Your task to perform on an android device: Open Google Chrome and open the bookmarks view Image 0: 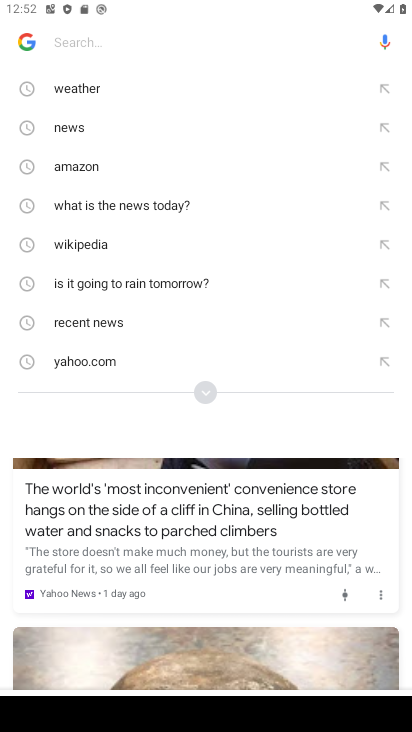
Step 0: press back button
Your task to perform on an android device: Open Google Chrome and open the bookmarks view Image 1: 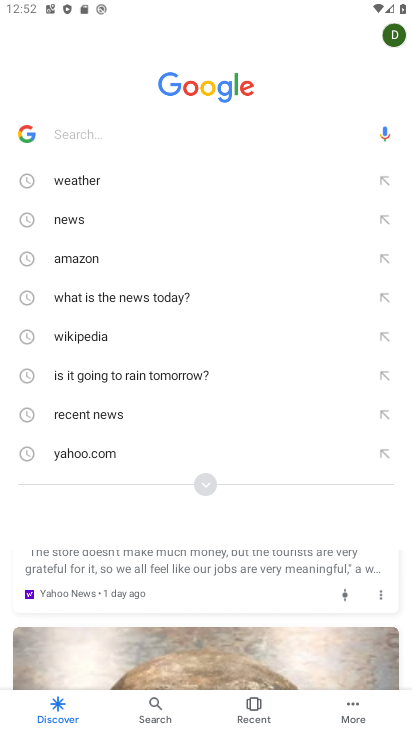
Step 1: press back button
Your task to perform on an android device: Open Google Chrome and open the bookmarks view Image 2: 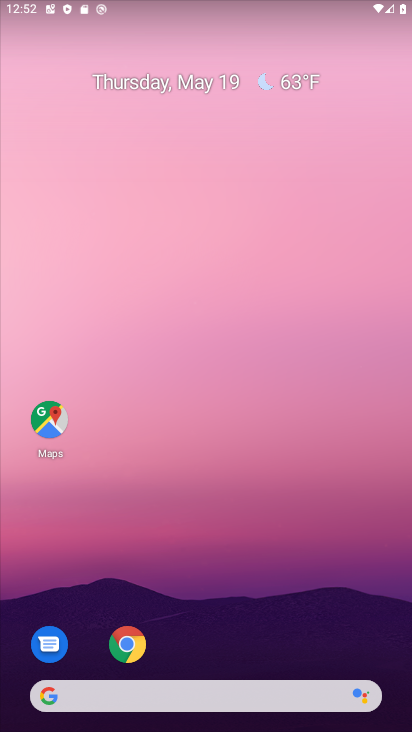
Step 2: click (132, 637)
Your task to perform on an android device: Open Google Chrome and open the bookmarks view Image 3: 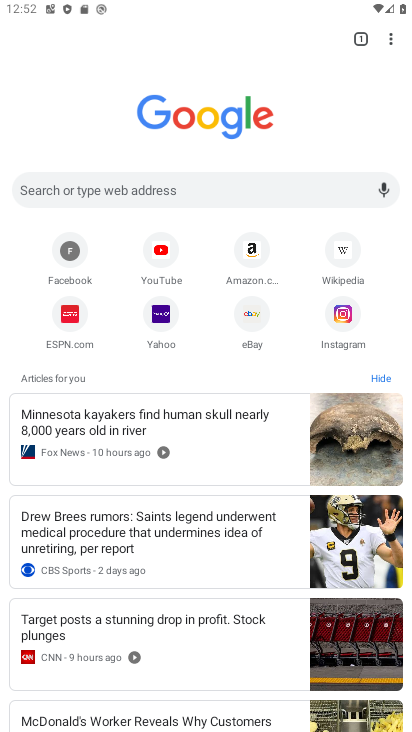
Step 3: click (387, 37)
Your task to perform on an android device: Open Google Chrome and open the bookmarks view Image 4: 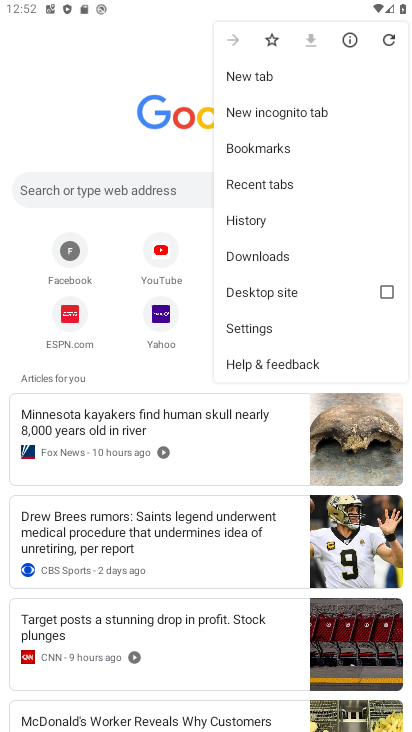
Step 4: click (257, 146)
Your task to perform on an android device: Open Google Chrome and open the bookmarks view Image 5: 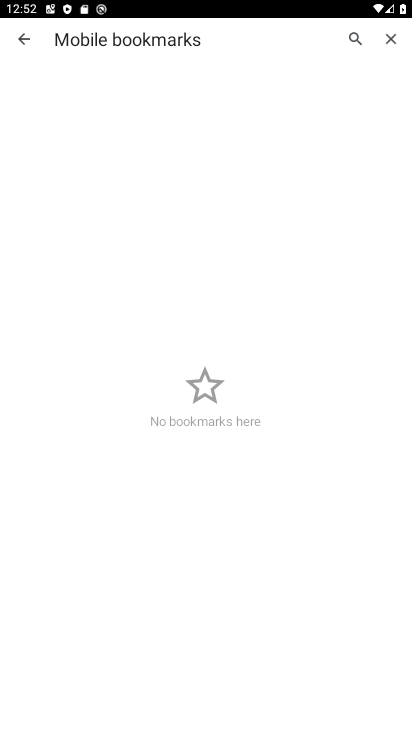
Step 5: task complete